Your task to perform on an android device: Go to notification settings Image 0: 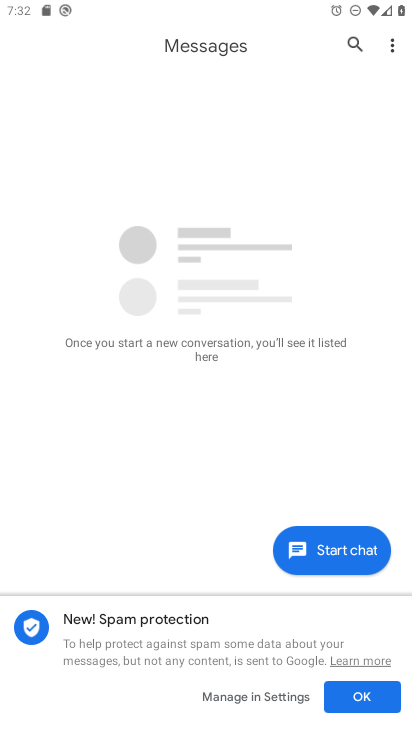
Step 0: press home button
Your task to perform on an android device: Go to notification settings Image 1: 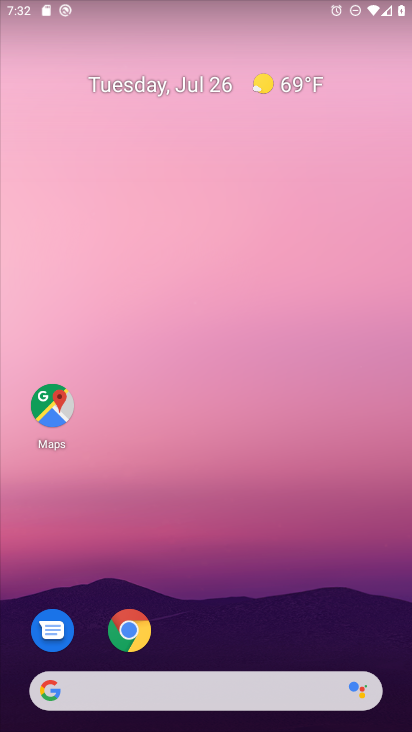
Step 1: drag from (211, 622) to (225, 36)
Your task to perform on an android device: Go to notification settings Image 2: 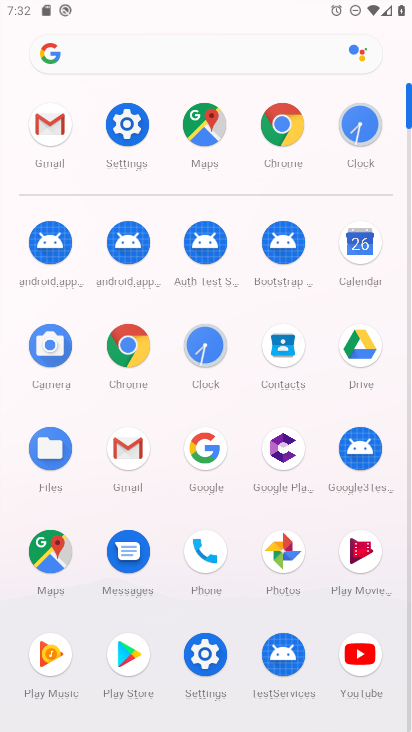
Step 2: click (219, 665)
Your task to perform on an android device: Go to notification settings Image 3: 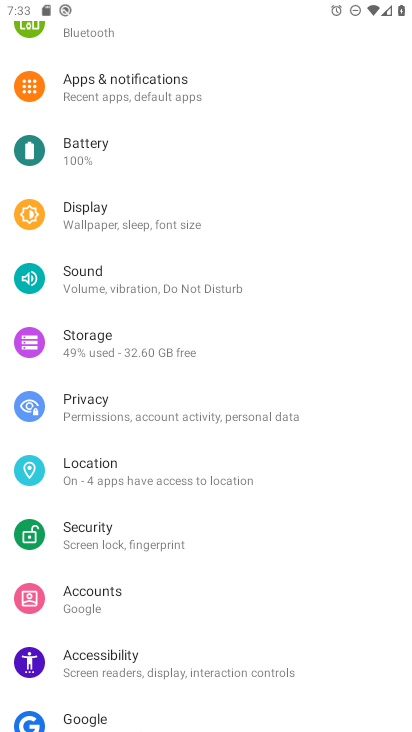
Step 3: click (151, 92)
Your task to perform on an android device: Go to notification settings Image 4: 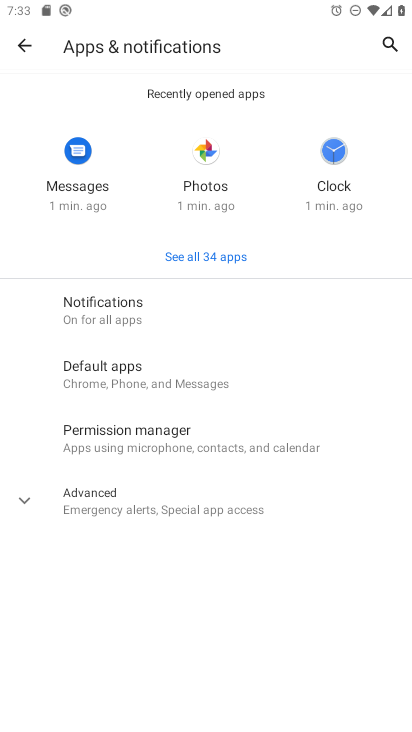
Step 4: click (200, 95)
Your task to perform on an android device: Go to notification settings Image 5: 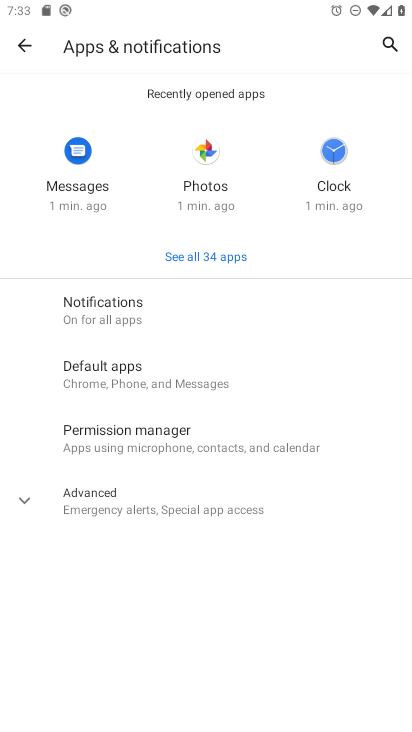
Step 5: click (192, 320)
Your task to perform on an android device: Go to notification settings Image 6: 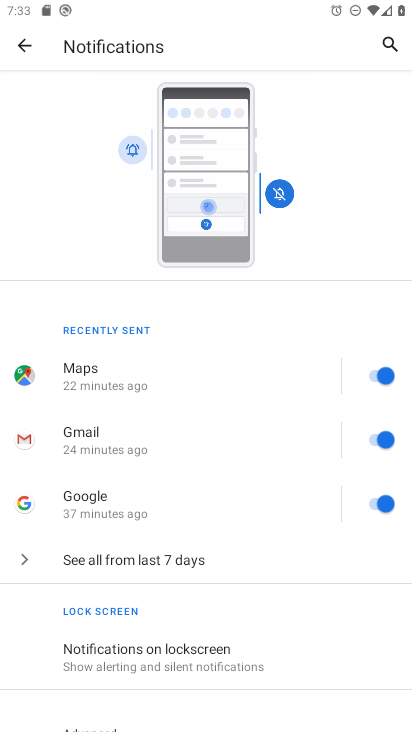
Step 6: task complete